Your task to perform on an android device: Show me the alarms in the clock app Image 0: 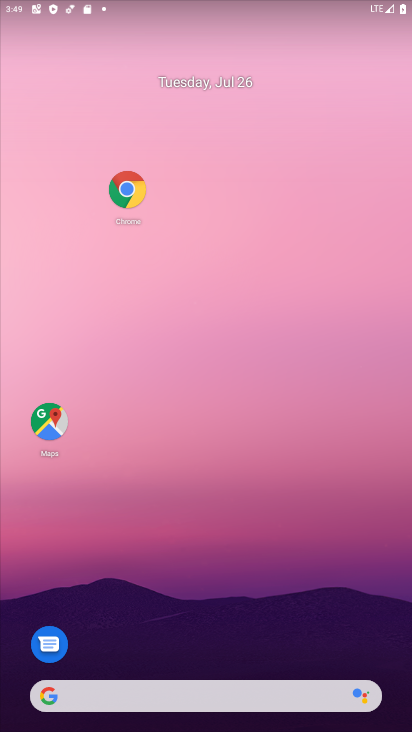
Step 0: drag from (178, 677) to (178, 201)
Your task to perform on an android device: Show me the alarms in the clock app Image 1: 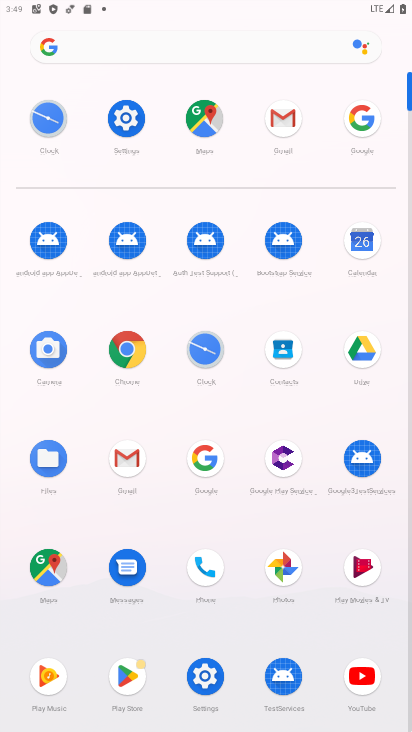
Step 1: click (207, 351)
Your task to perform on an android device: Show me the alarms in the clock app Image 2: 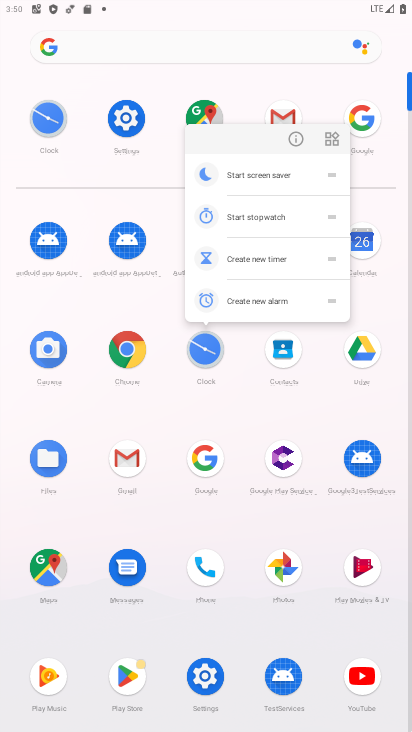
Step 2: click (190, 359)
Your task to perform on an android device: Show me the alarms in the clock app Image 3: 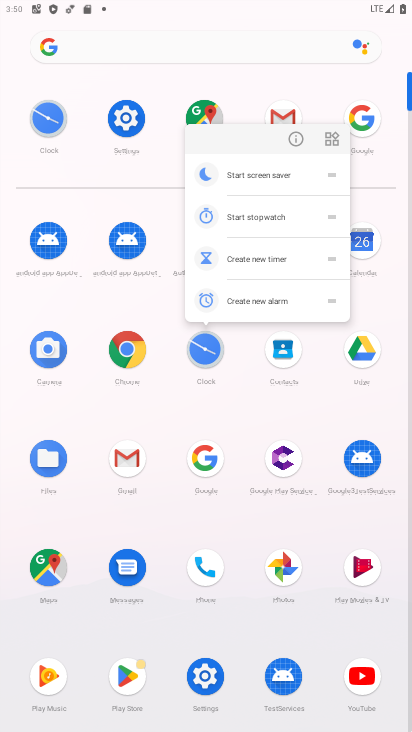
Step 3: click (206, 361)
Your task to perform on an android device: Show me the alarms in the clock app Image 4: 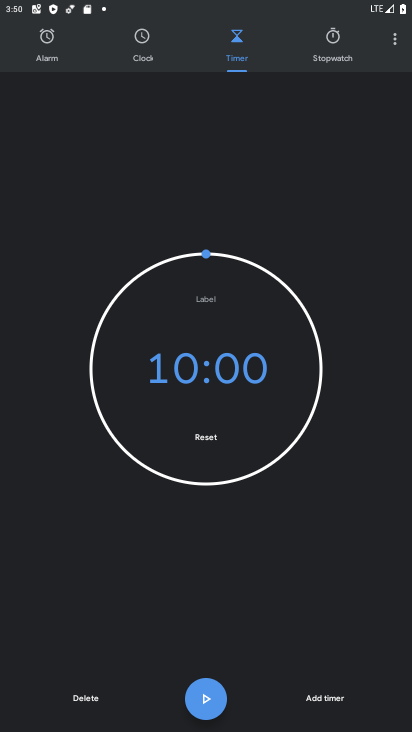
Step 4: click (46, 49)
Your task to perform on an android device: Show me the alarms in the clock app Image 5: 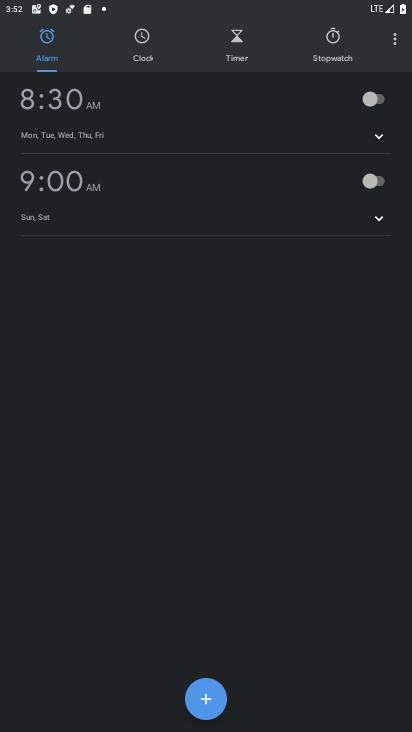
Step 5: click (53, 224)
Your task to perform on an android device: Show me the alarms in the clock app Image 6: 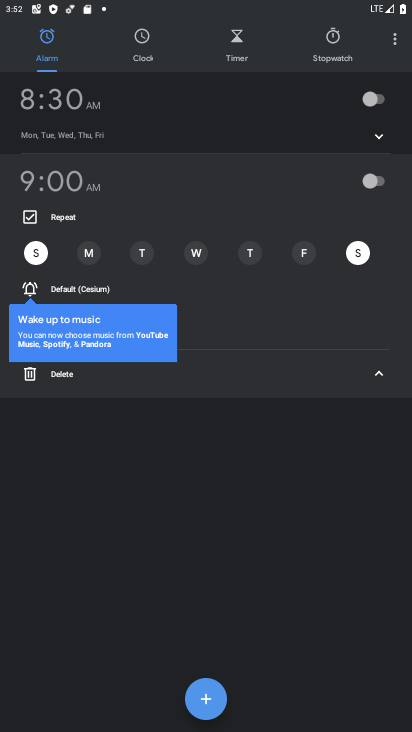
Step 6: task complete